Your task to perform on an android device: turn off notifications settings in the gmail app Image 0: 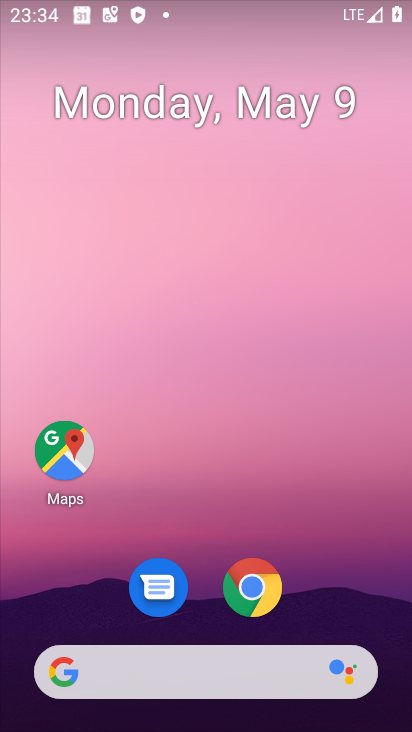
Step 0: drag from (195, 627) to (306, 33)
Your task to perform on an android device: turn off notifications settings in the gmail app Image 1: 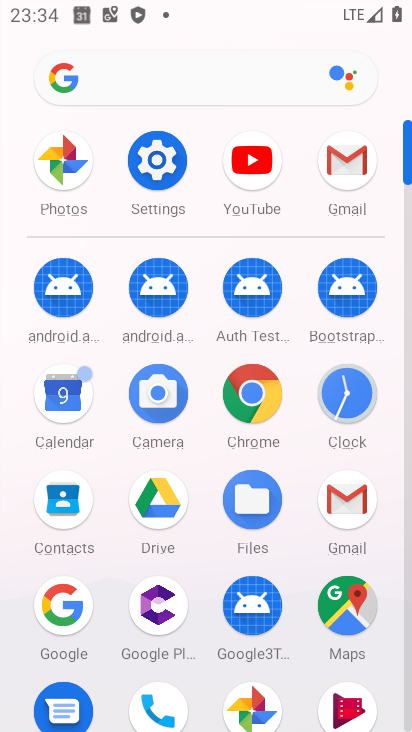
Step 1: click (349, 161)
Your task to perform on an android device: turn off notifications settings in the gmail app Image 2: 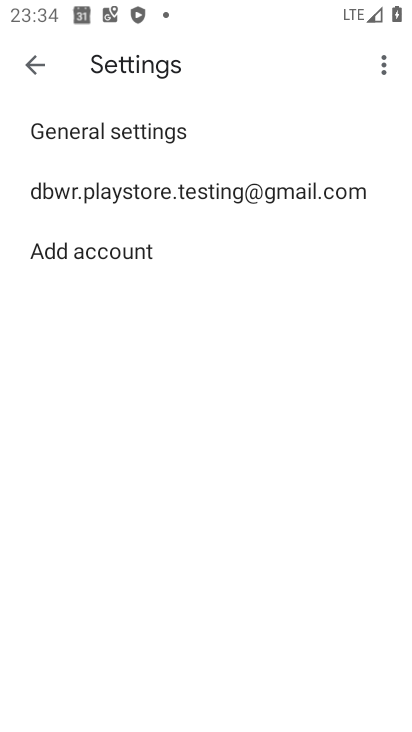
Step 2: click (244, 183)
Your task to perform on an android device: turn off notifications settings in the gmail app Image 3: 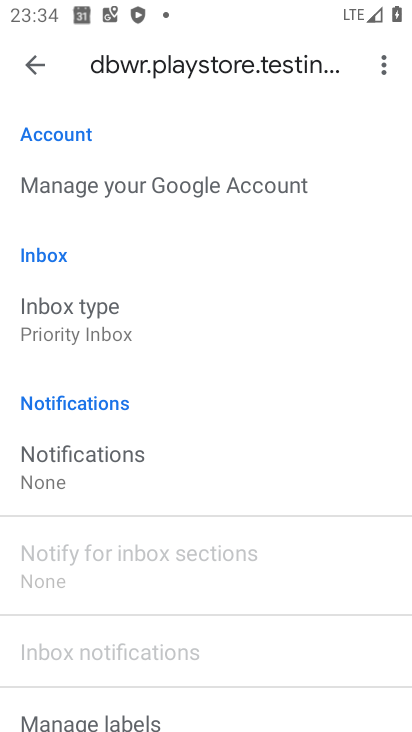
Step 3: click (125, 478)
Your task to perform on an android device: turn off notifications settings in the gmail app Image 4: 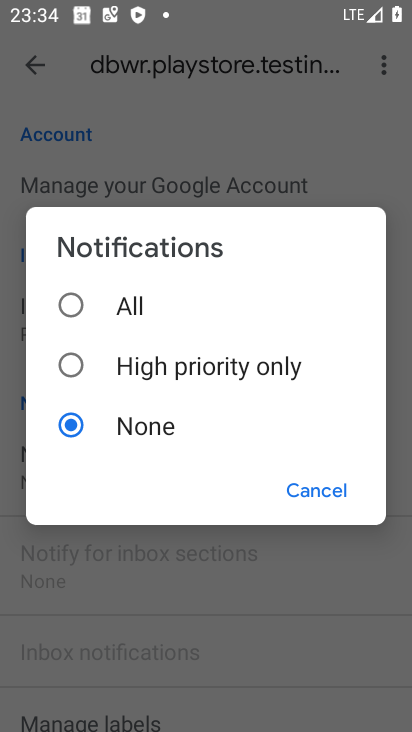
Step 4: task complete